Your task to perform on an android device: Turn on the flashlight Image 0: 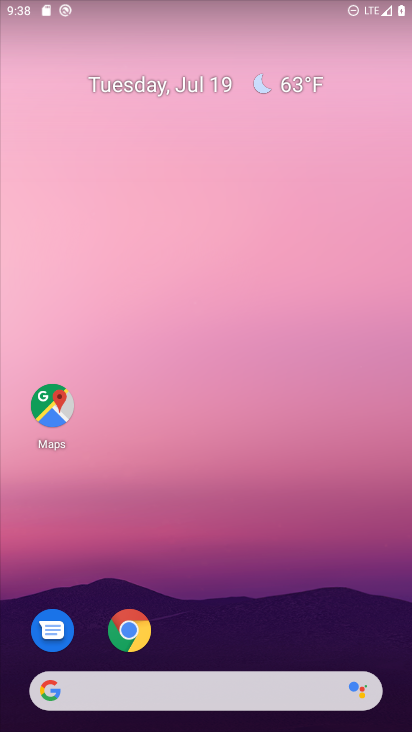
Step 0: drag from (247, 522) to (253, 160)
Your task to perform on an android device: Turn on the flashlight Image 1: 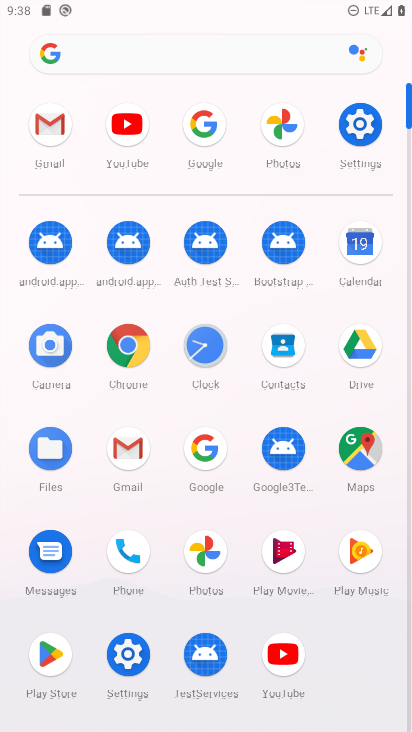
Step 1: click (361, 124)
Your task to perform on an android device: Turn on the flashlight Image 2: 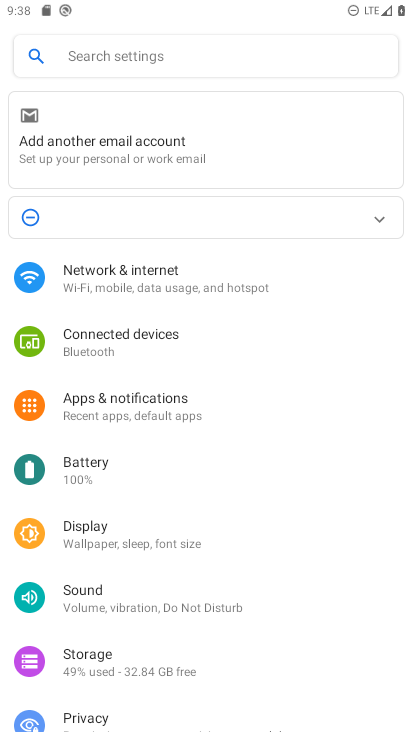
Step 2: drag from (130, 499) to (207, 396)
Your task to perform on an android device: Turn on the flashlight Image 3: 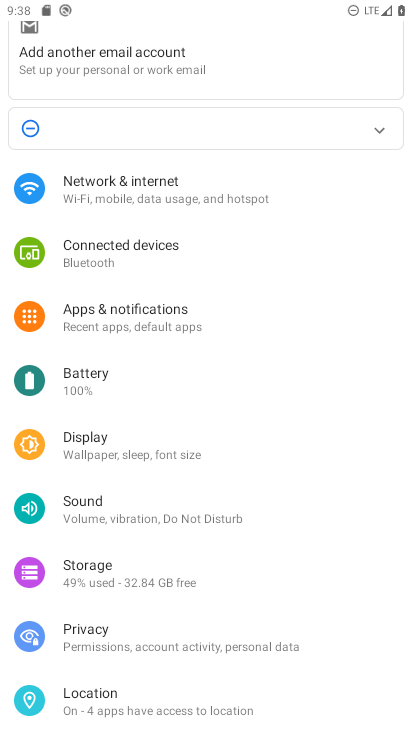
Step 3: drag from (141, 532) to (233, 421)
Your task to perform on an android device: Turn on the flashlight Image 4: 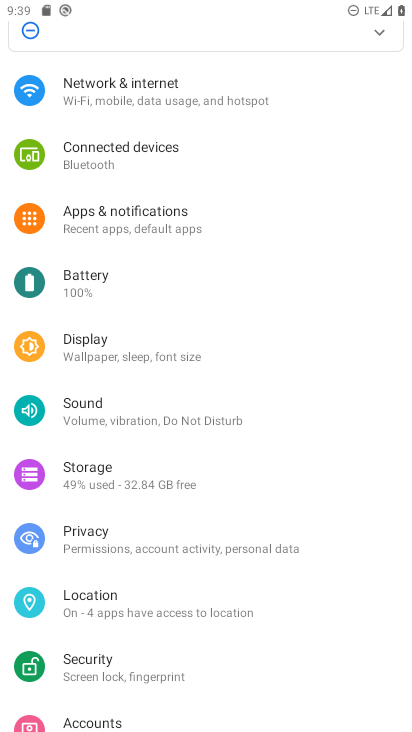
Step 4: click (148, 357)
Your task to perform on an android device: Turn on the flashlight Image 5: 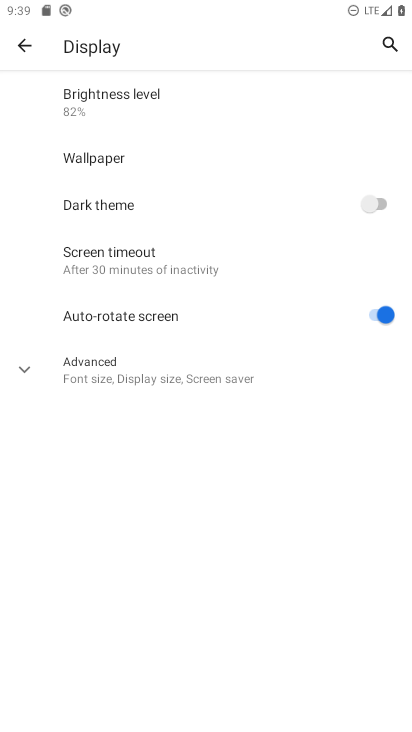
Step 5: click (91, 373)
Your task to perform on an android device: Turn on the flashlight Image 6: 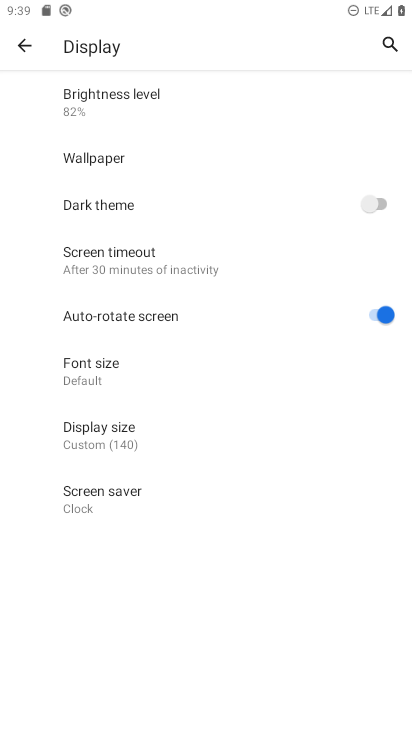
Step 6: click (392, 40)
Your task to perform on an android device: Turn on the flashlight Image 7: 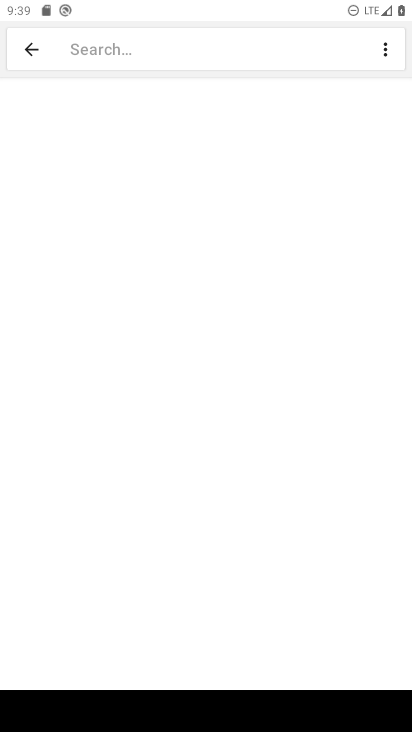
Step 7: type "flaslight"
Your task to perform on an android device: Turn on the flashlight Image 8: 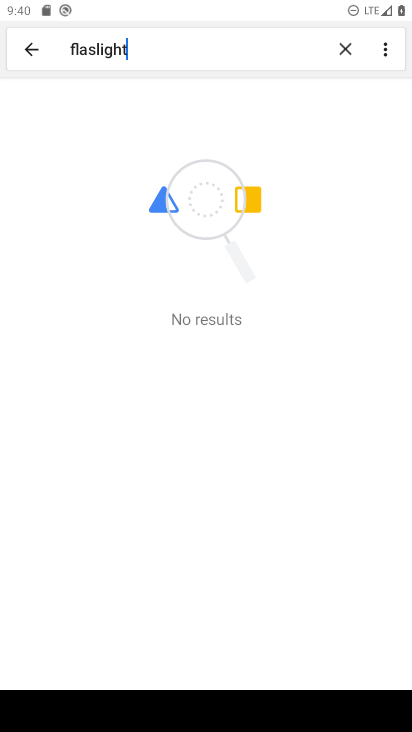
Step 8: task complete